Your task to perform on an android device: What's the weather going to be this weekend? Image 0: 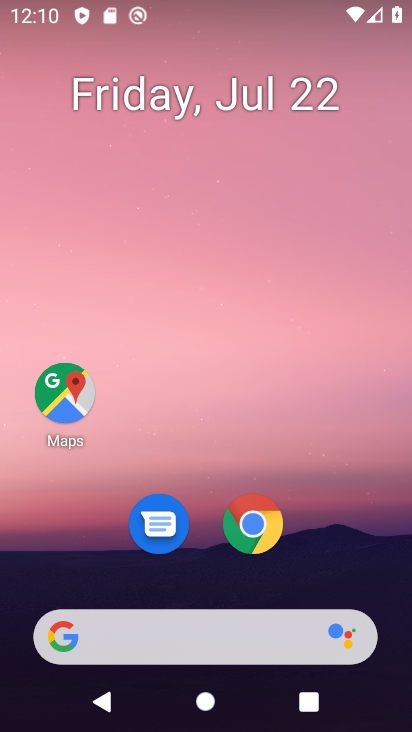
Step 0: click (191, 629)
Your task to perform on an android device: What's the weather going to be this weekend? Image 1: 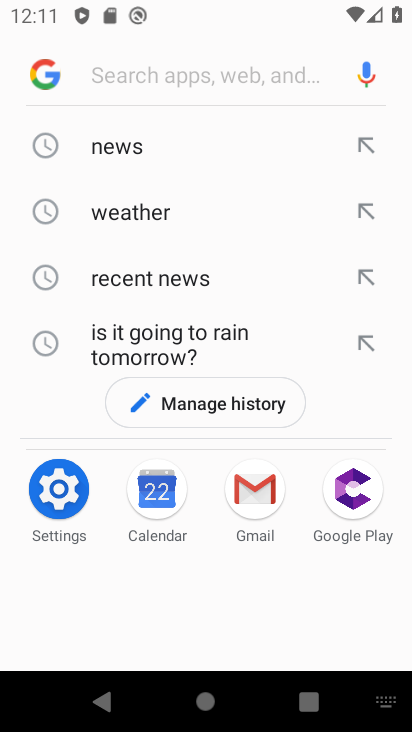
Step 1: click (146, 211)
Your task to perform on an android device: What's the weather going to be this weekend? Image 2: 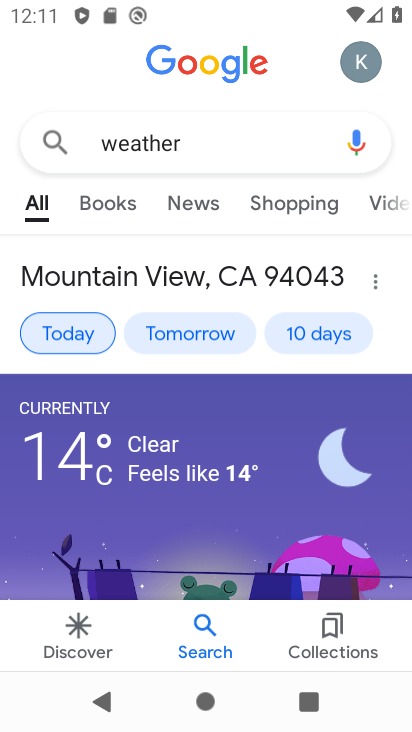
Step 2: click (303, 323)
Your task to perform on an android device: What's the weather going to be this weekend? Image 3: 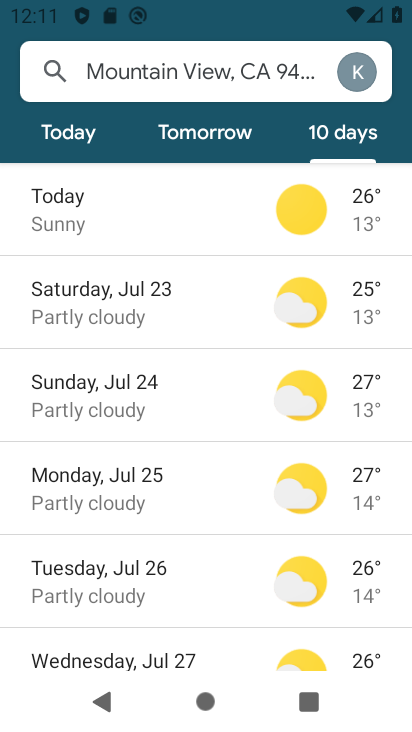
Step 3: click (113, 320)
Your task to perform on an android device: What's the weather going to be this weekend? Image 4: 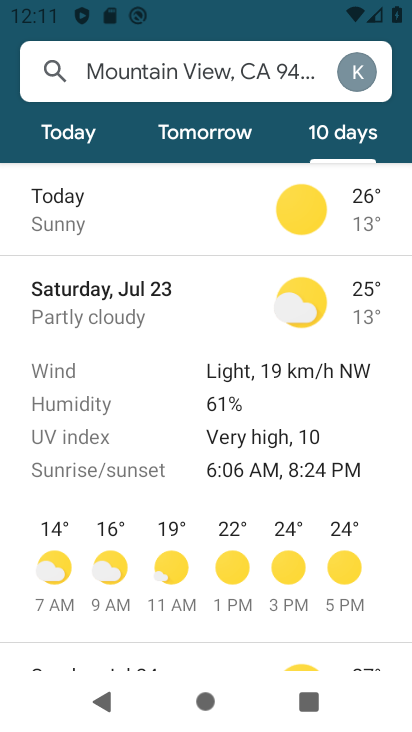
Step 4: task complete